Your task to perform on an android device: Show me the alarms in the clock app Image 0: 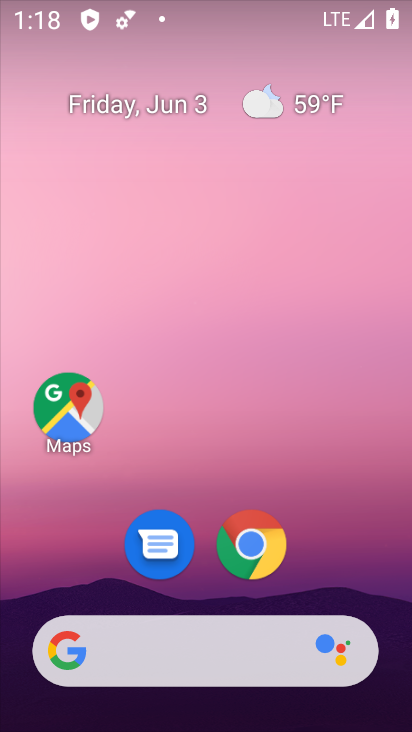
Step 0: drag from (249, 624) to (178, 66)
Your task to perform on an android device: Show me the alarms in the clock app Image 1: 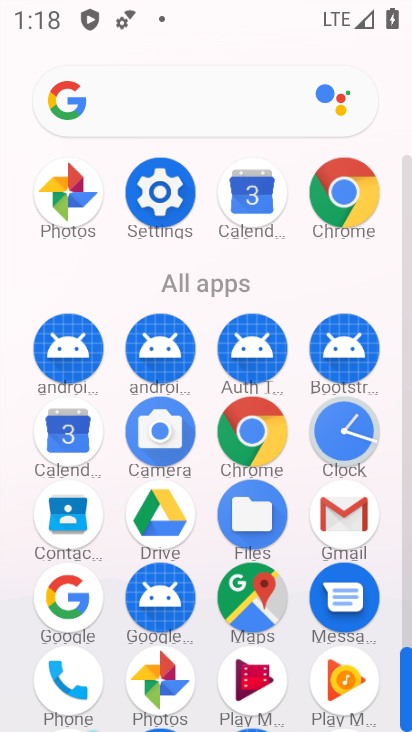
Step 1: click (372, 437)
Your task to perform on an android device: Show me the alarms in the clock app Image 2: 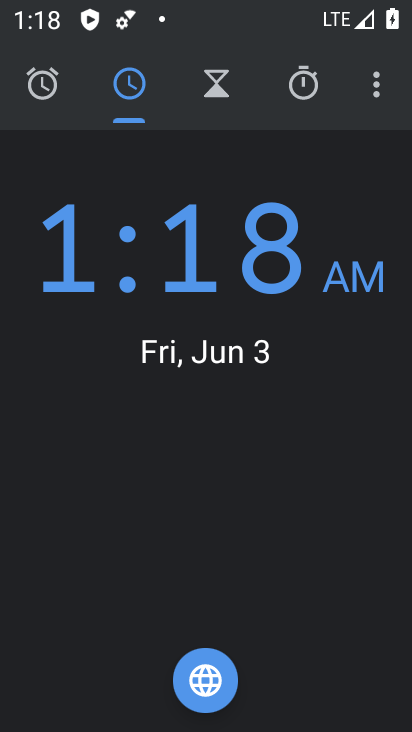
Step 2: click (45, 67)
Your task to perform on an android device: Show me the alarms in the clock app Image 3: 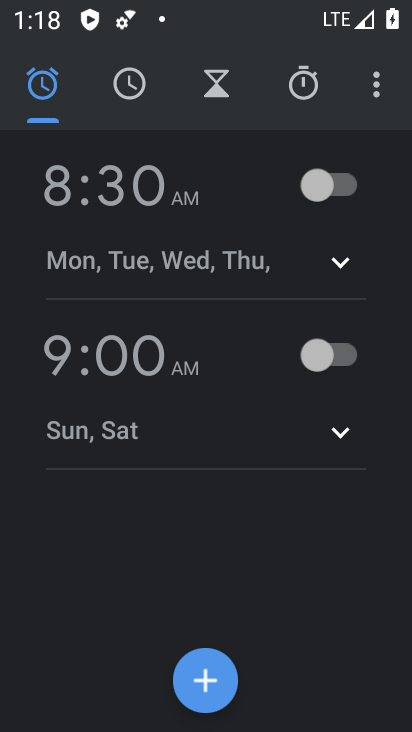
Step 3: task complete